Your task to perform on an android device: Go to Reddit.com Image 0: 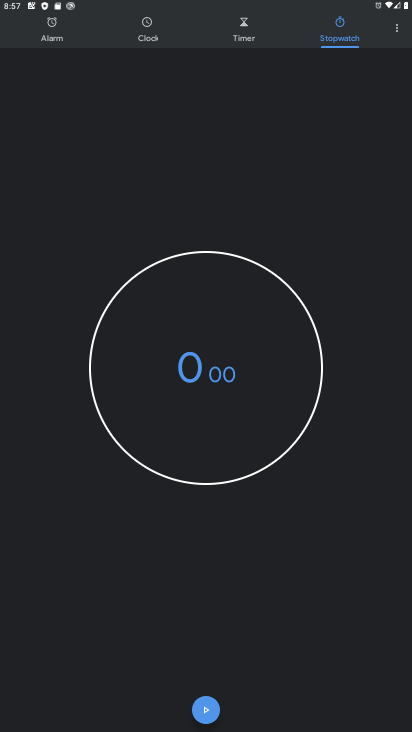
Step 0: press home button
Your task to perform on an android device: Go to Reddit.com Image 1: 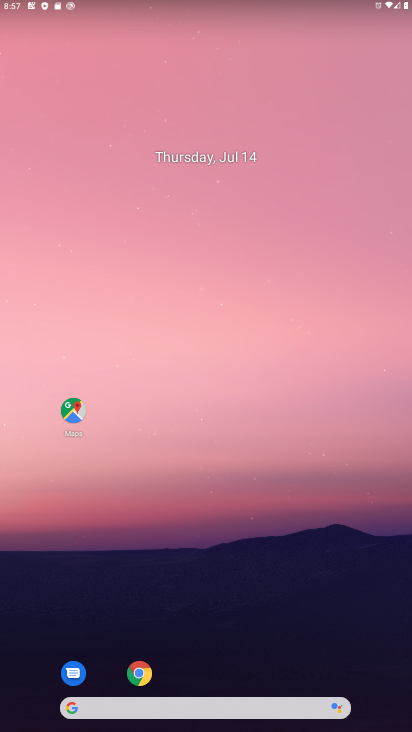
Step 1: click (140, 674)
Your task to perform on an android device: Go to Reddit.com Image 2: 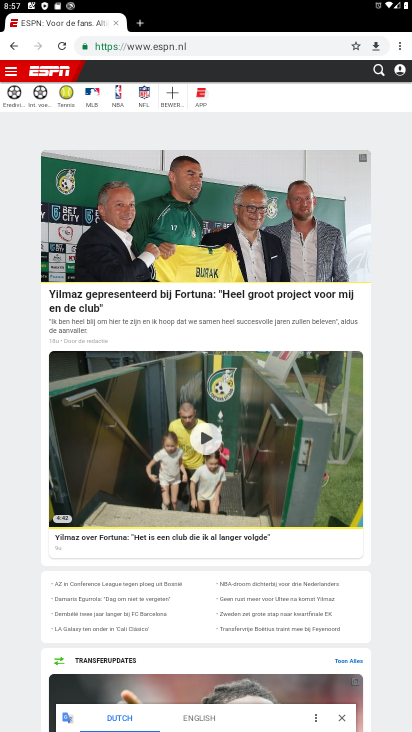
Step 2: click (294, 48)
Your task to perform on an android device: Go to Reddit.com Image 3: 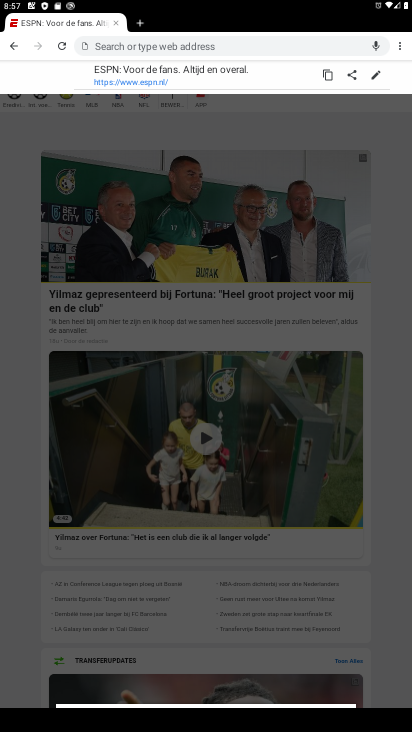
Step 3: type "Reddit.com"
Your task to perform on an android device: Go to Reddit.com Image 4: 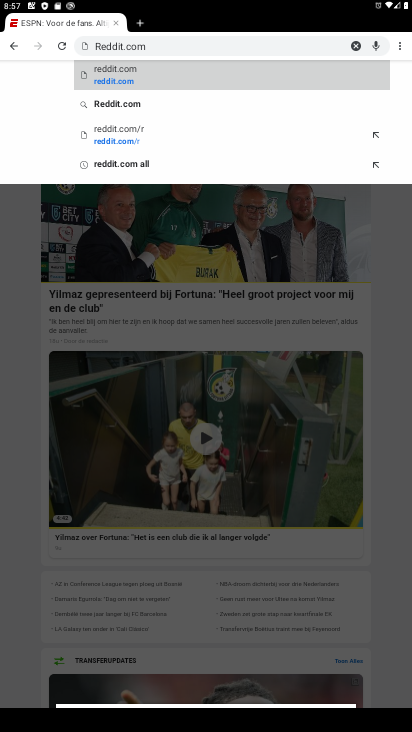
Step 4: click (139, 109)
Your task to perform on an android device: Go to Reddit.com Image 5: 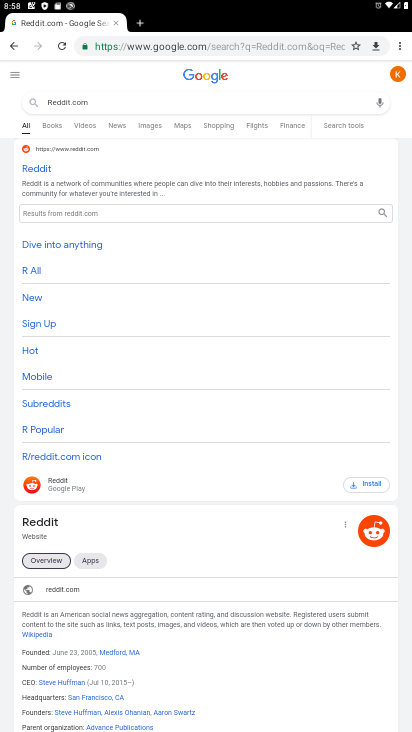
Step 5: click (49, 177)
Your task to perform on an android device: Go to Reddit.com Image 6: 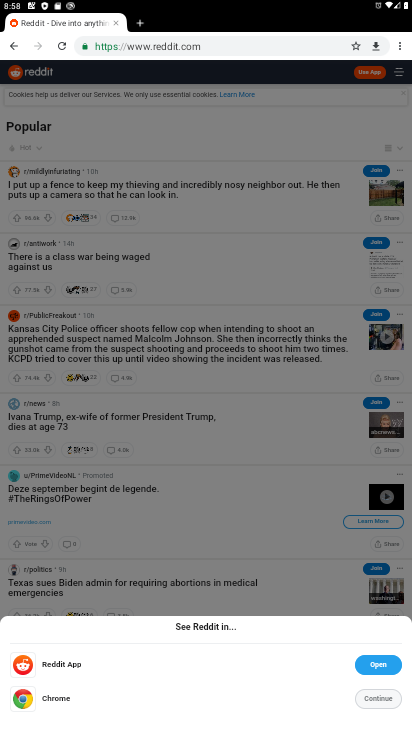
Step 6: click (375, 697)
Your task to perform on an android device: Go to Reddit.com Image 7: 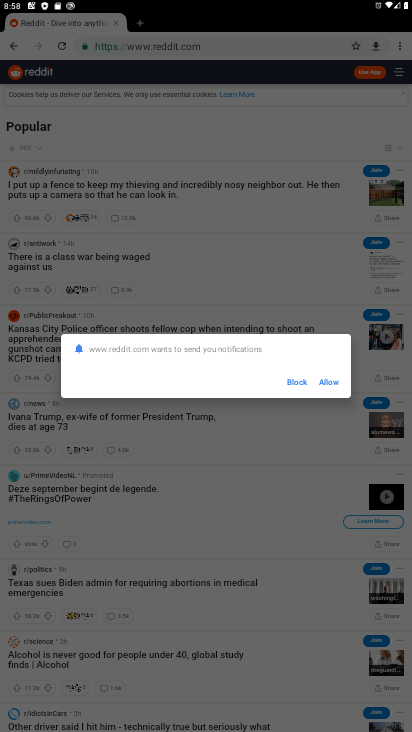
Step 7: click (332, 381)
Your task to perform on an android device: Go to Reddit.com Image 8: 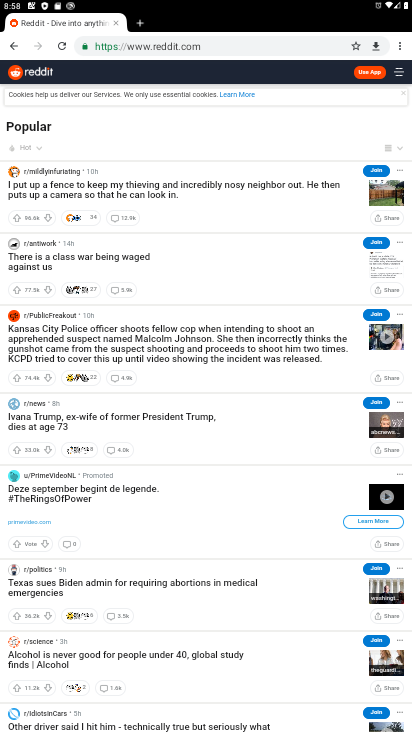
Step 8: task complete